Your task to perform on an android device: What's the weather today? Image 0: 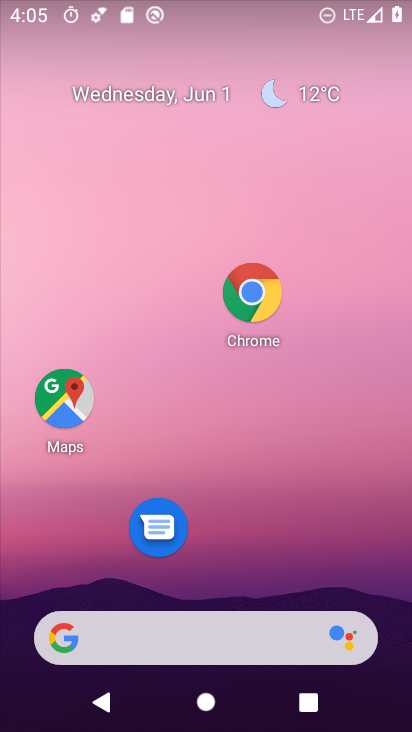
Step 0: drag from (237, 564) to (384, 14)
Your task to perform on an android device: What's the weather today? Image 1: 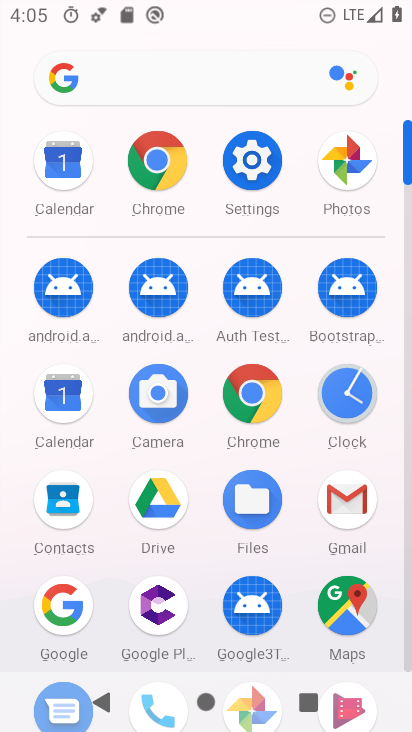
Step 1: click (62, 614)
Your task to perform on an android device: What's the weather today? Image 2: 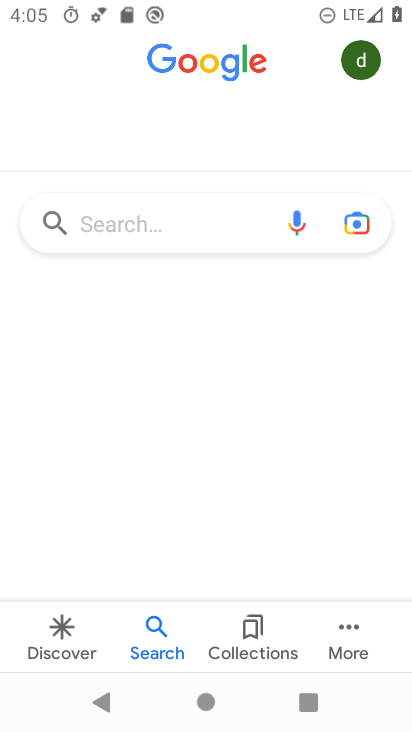
Step 2: click (179, 219)
Your task to perform on an android device: What's the weather today? Image 3: 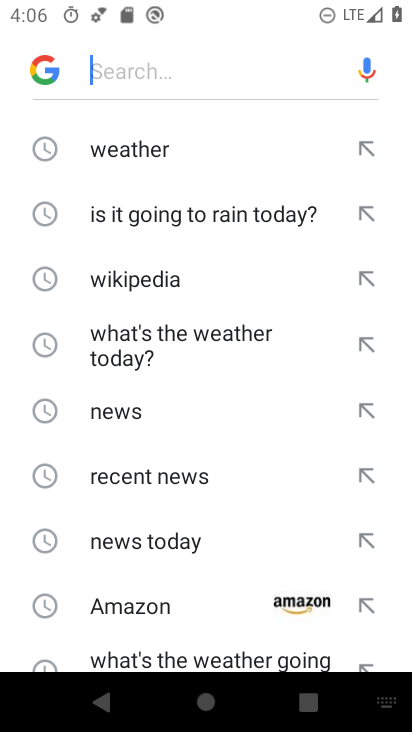
Step 3: click (167, 143)
Your task to perform on an android device: What's the weather today? Image 4: 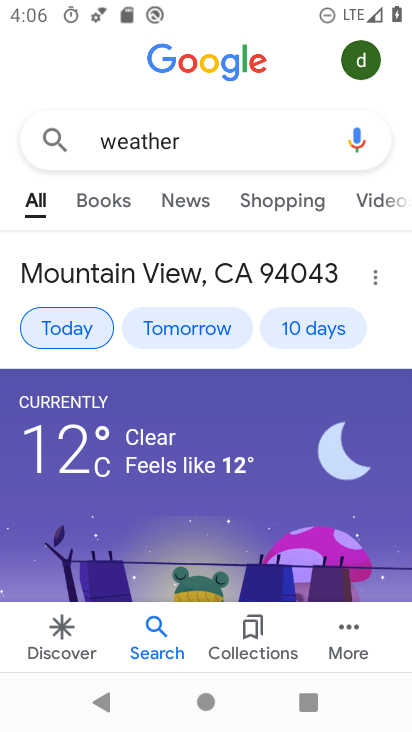
Step 4: click (97, 328)
Your task to perform on an android device: What's the weather today? Image 5: 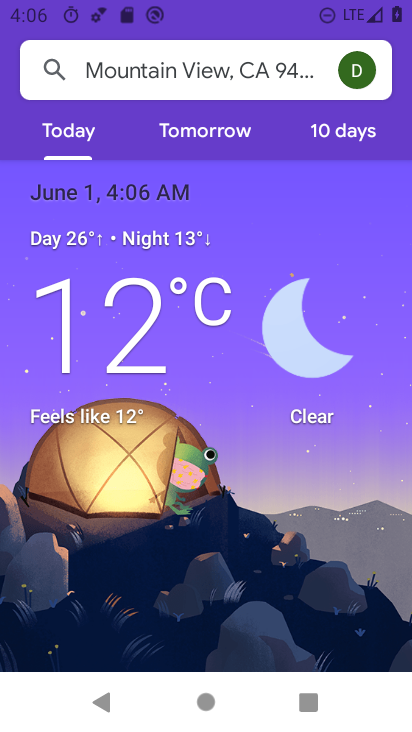
Step 5: task complete